Your task to perform on an android device: What is the news today? Image 0: 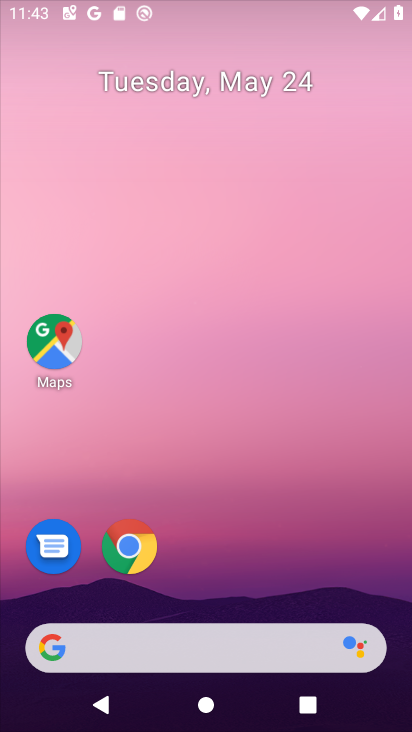
Step 0: drag from (205, 472) to (229, 32)
Your task to perform on an android device: What is the news today? Image 1: 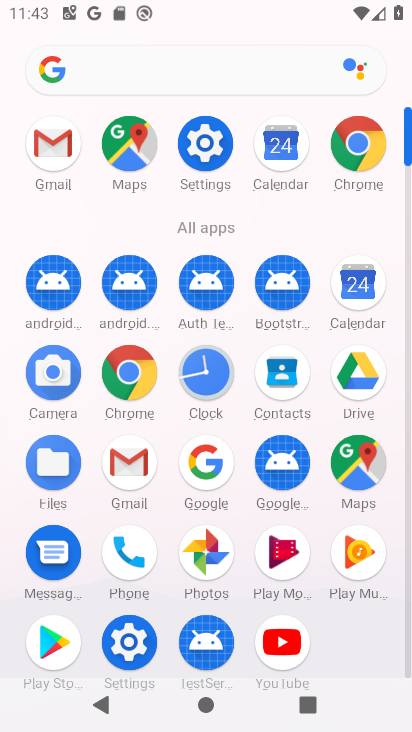
Step 1: click (223, 63)
Your task to perform on an android device: What is the news today? Image 2: 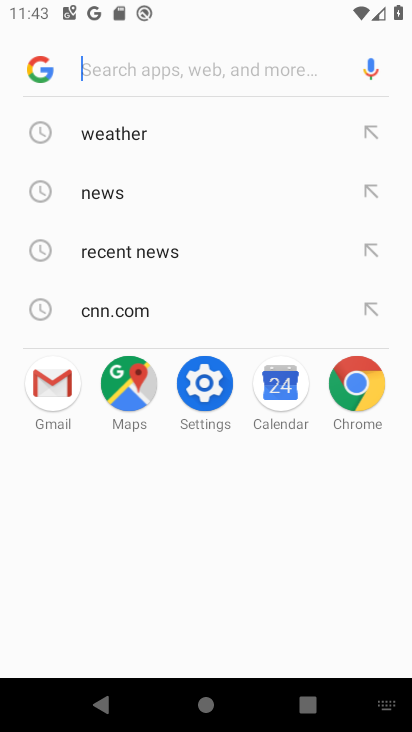
Step 2: type "news today"
Your task to perform on an android device: What is the news today? Image 3: 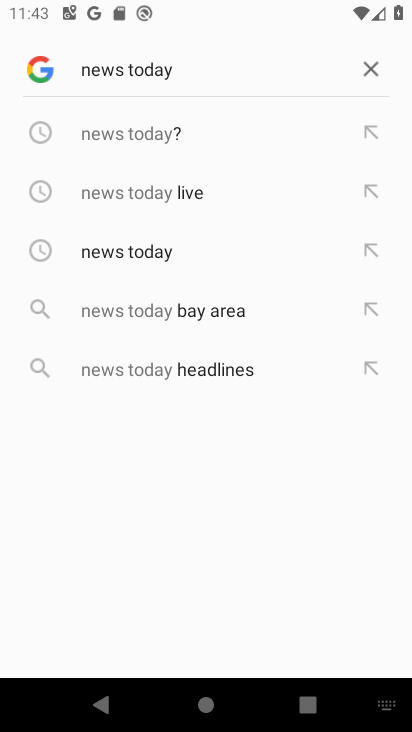
Step 3: click (136, 123)
Your task to perform on an android device: What is the news today? Image 4: 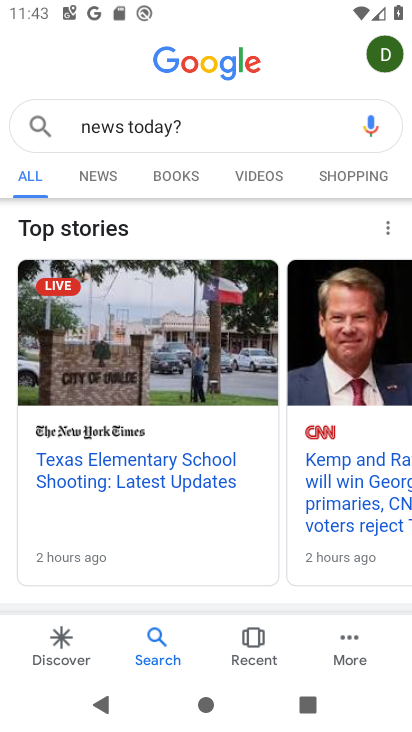
Step 4: task complete